Your task to perform on an android device: allow cookies in the chrome app Image 0: 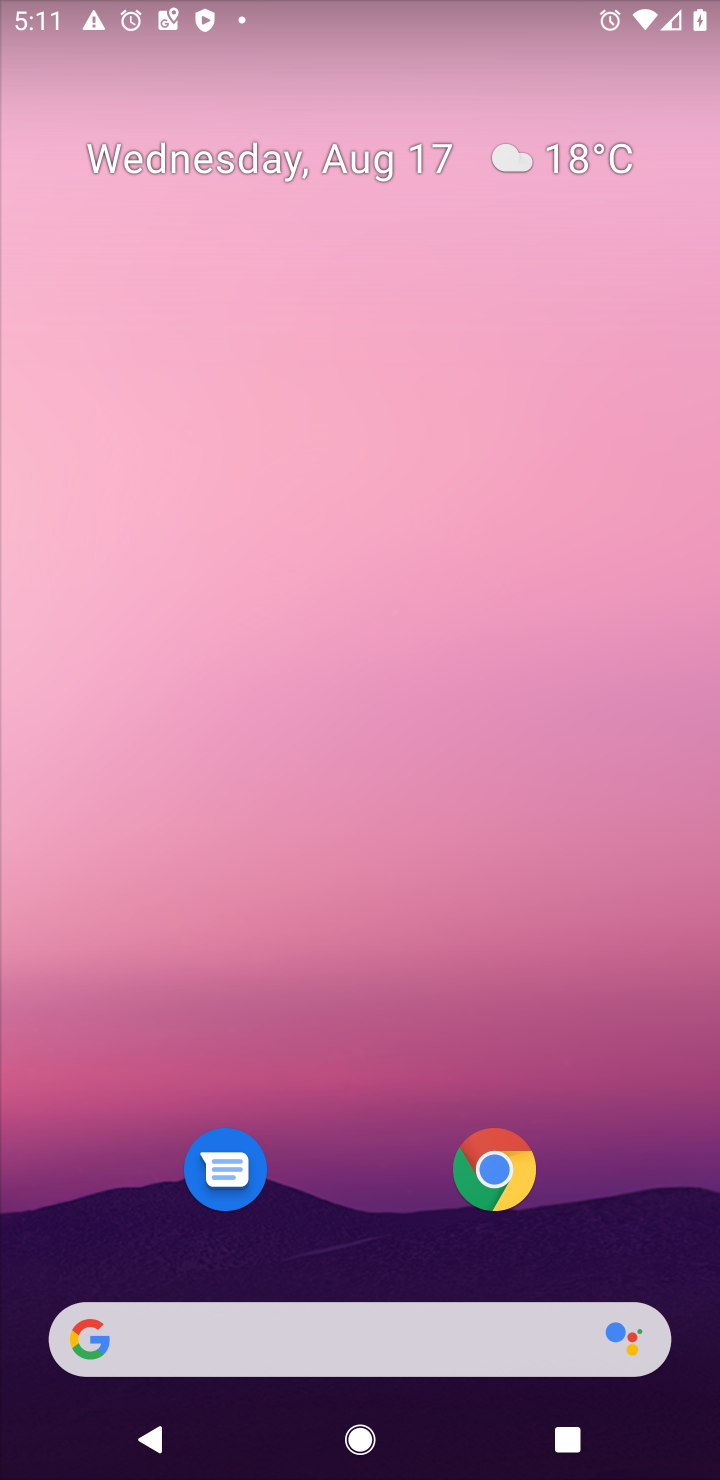
Step 0: drag from (349, 1224) to (543, 58)
Your task to perform on an android device: allow cookies in the chrome app Image 1: 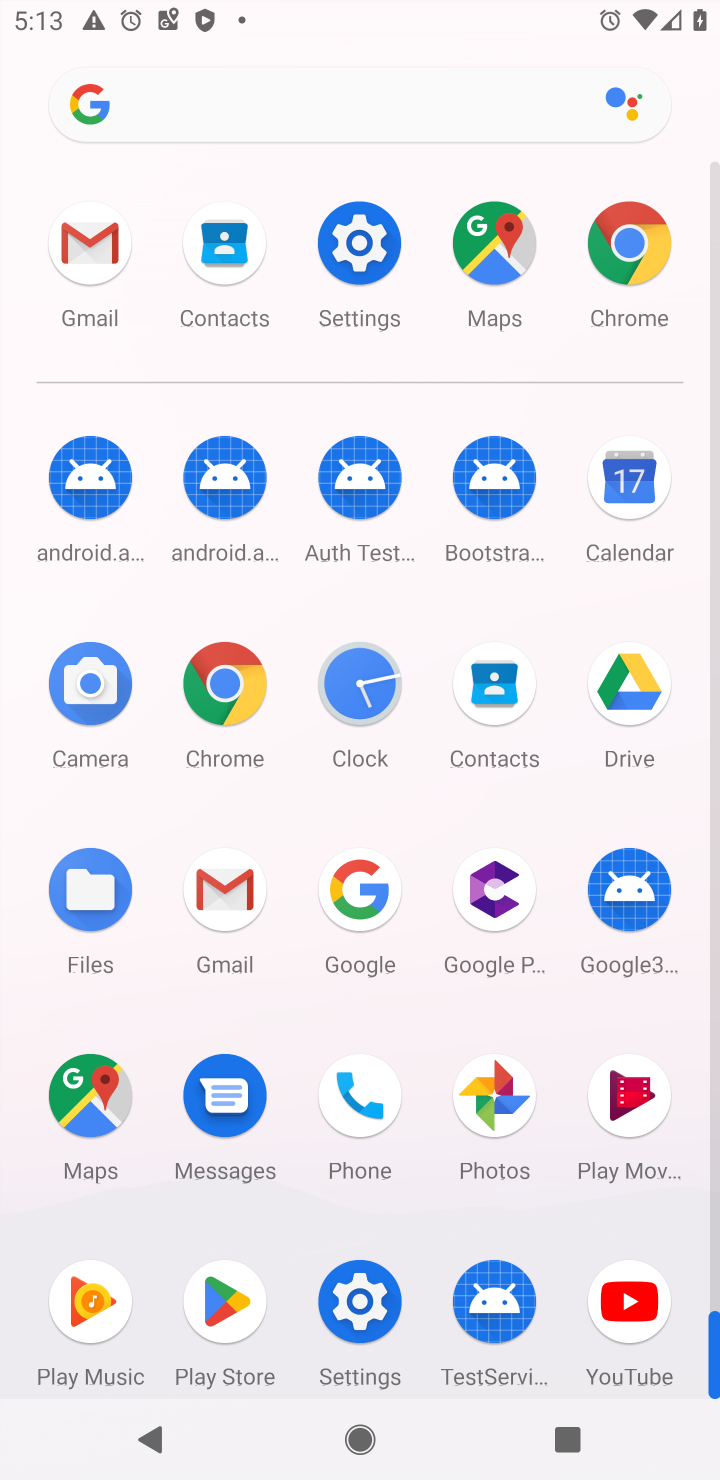
Step 1: click (223, 678)
Your task to perform on an android device: allow cookies in the chrome app Image 2: 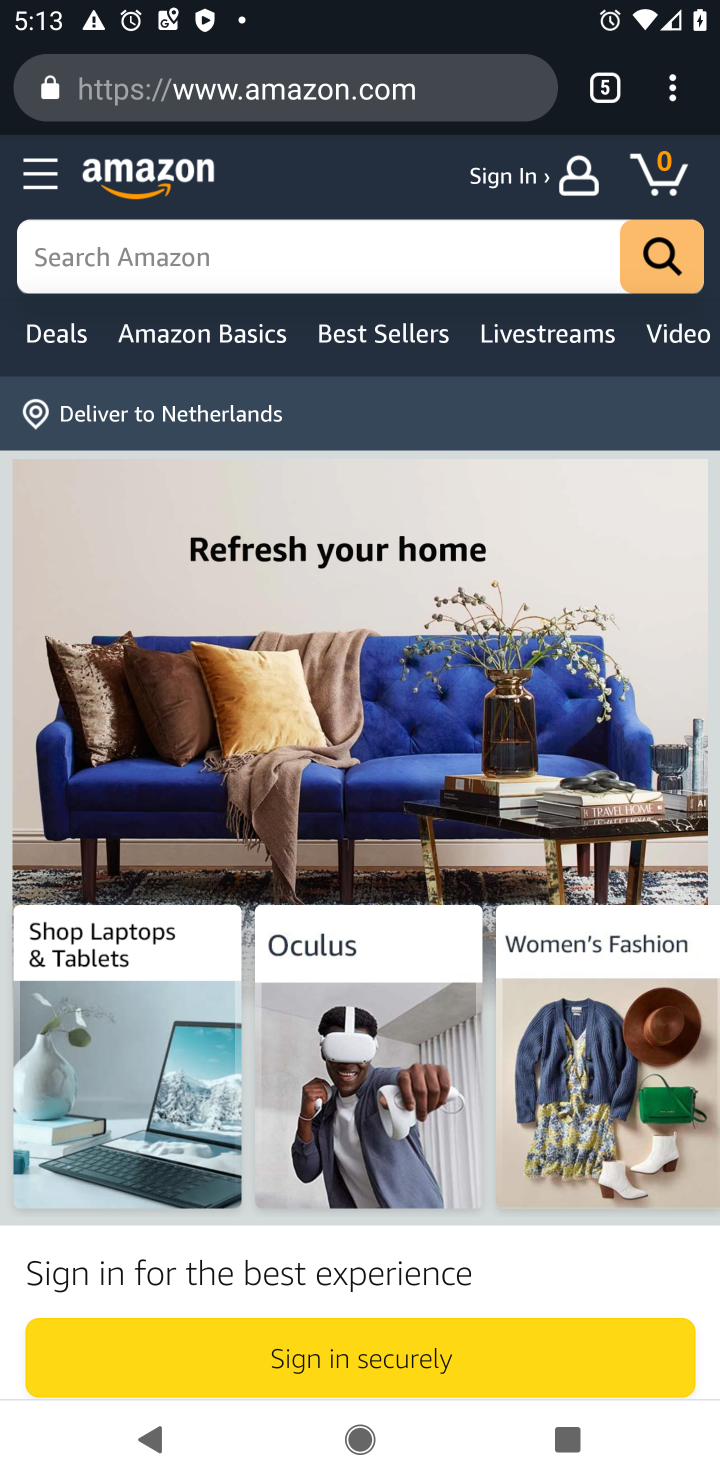
Step 2: drag from (680, 83) to (406, 1152)
Your task to perform on an android device: allow cookies in the chrome app Image 3: 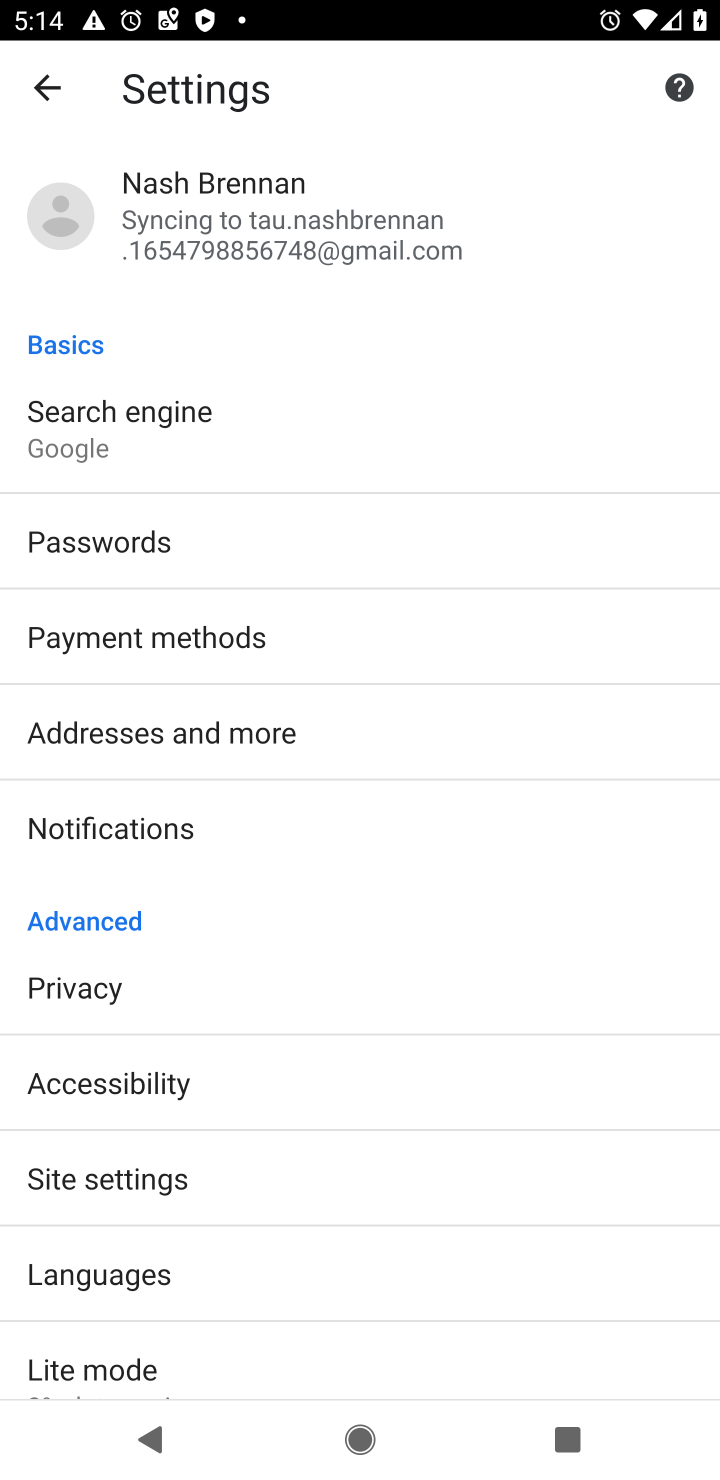
Step 3: drag from (274, 1254) to (283, 514)
Your task to perform on an android device: allow cookies in the chrome app Image 4: 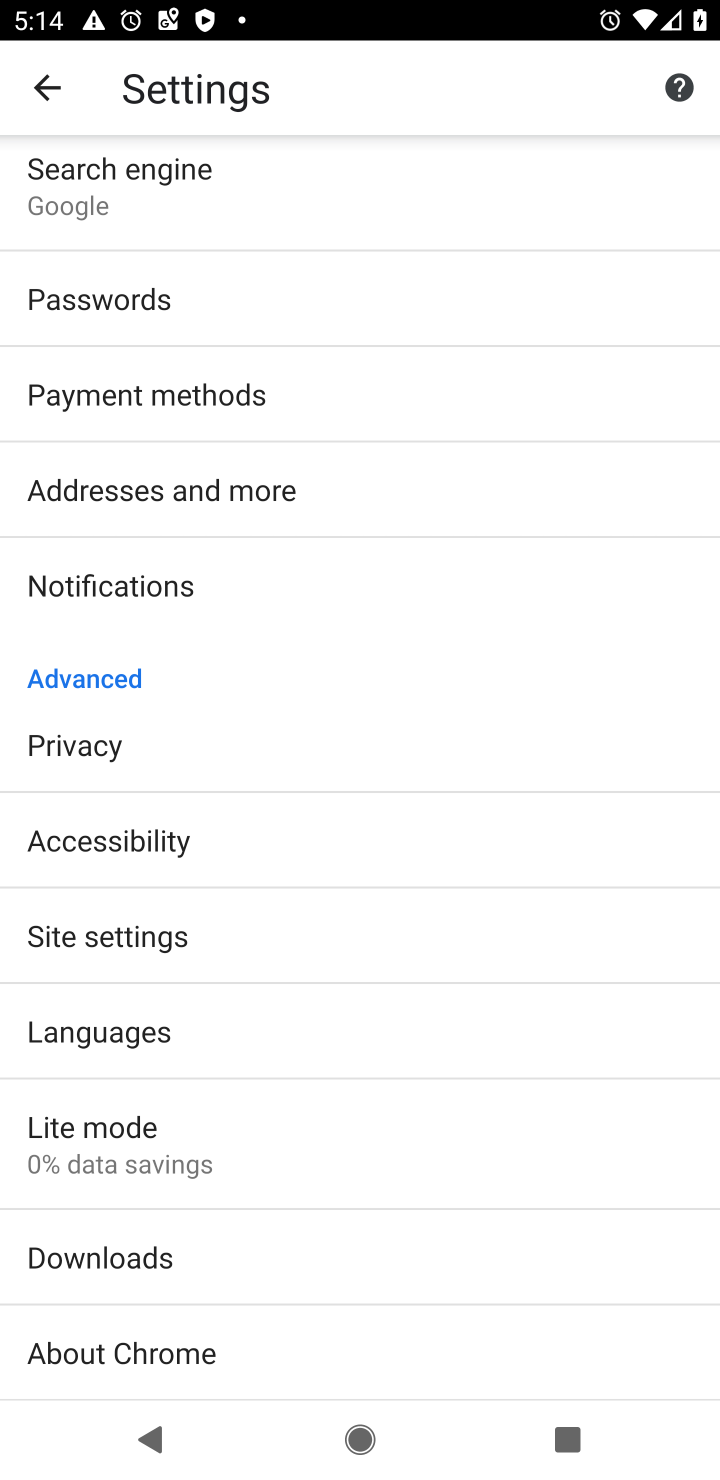
Step 4: click (112, 938)
Your task to perform on an android device: allow cookies in the chrome app Image 5: 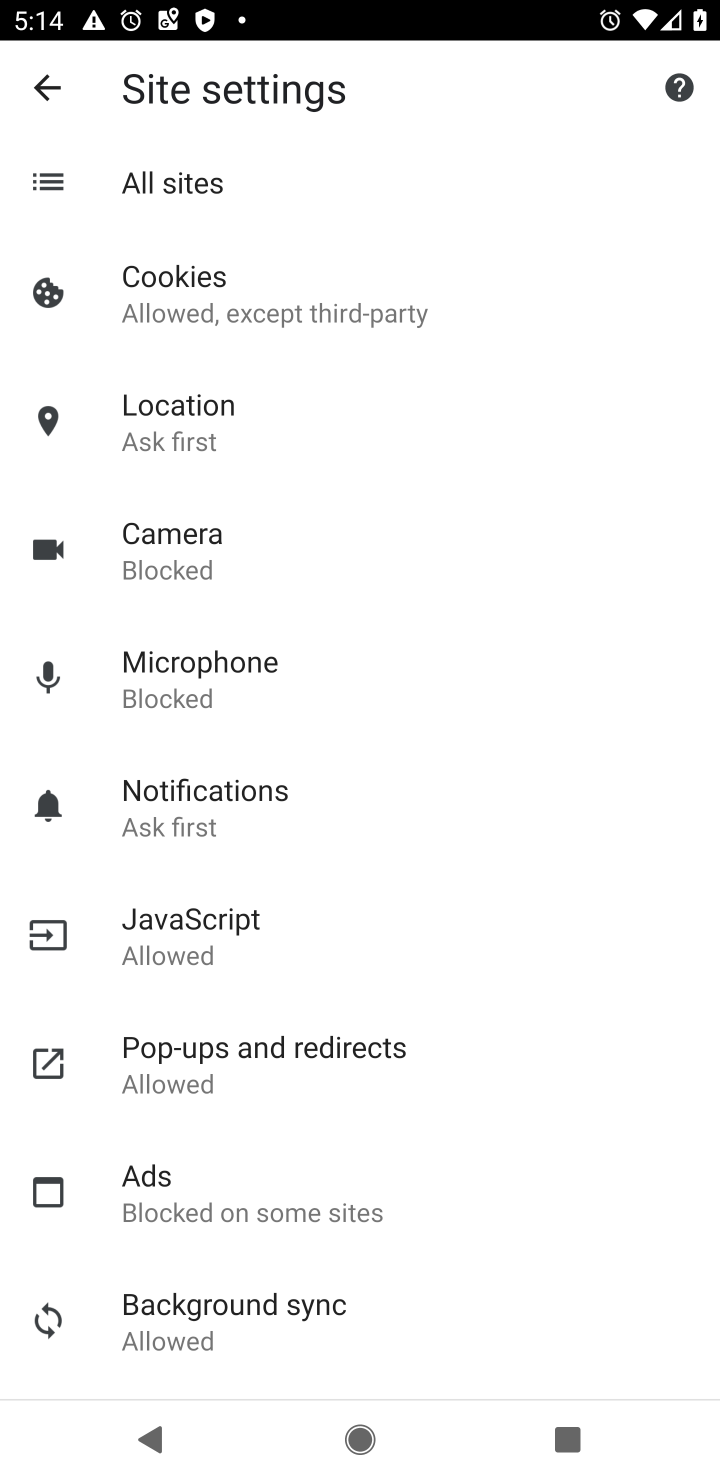
Step 5: click (290, 313)
Your task to perform on an android device: allow cookies in the chrome app Image 6: 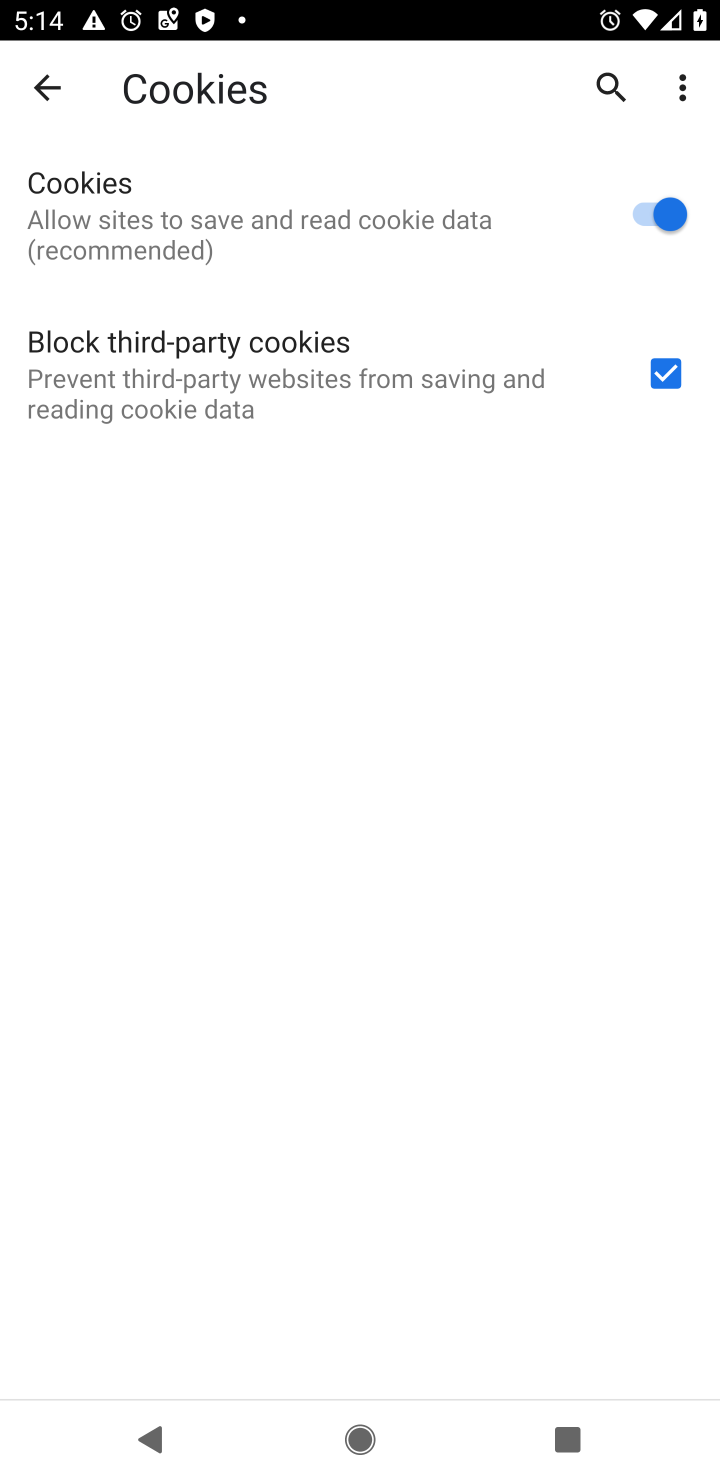
Step 6: task complete